Your task to perform on an android device: Do I have any events this weekend? Image 0: 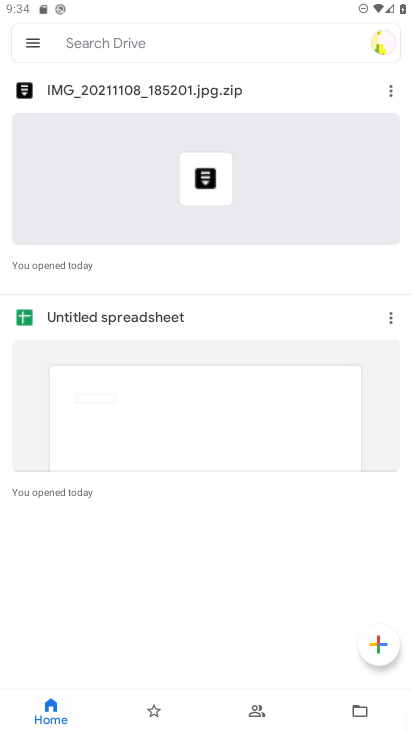
Step 0: press home button
Your task to perform on an android device: Do I have any events this weekend? Image 1: 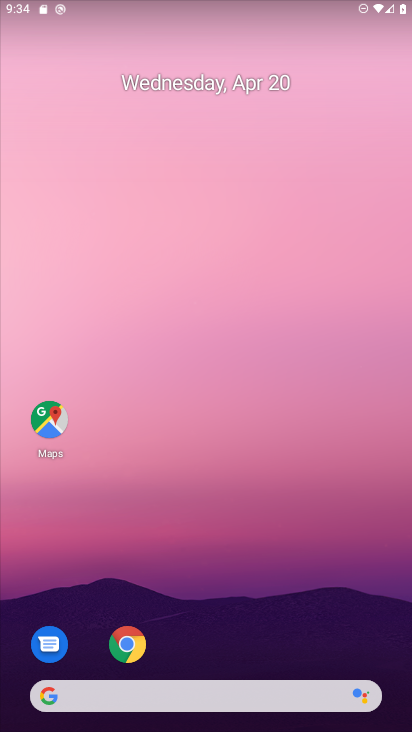
Step 1: drag from (304, 519) to (194, 17)
Your task to perform on an android device: Do I have any events this weekend? Image 2: 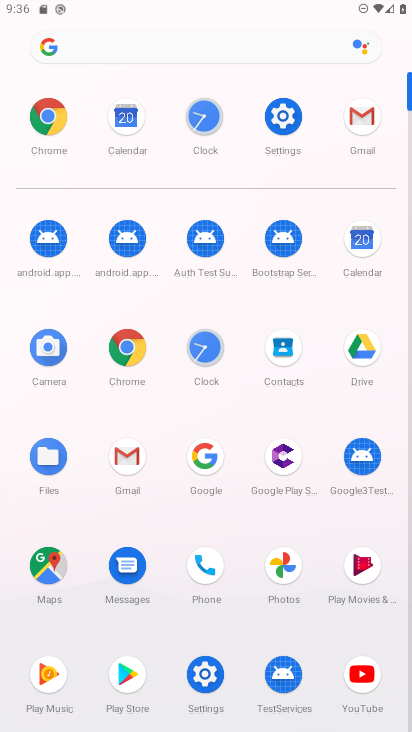
Step 2: click (373, 238)
Your task to perform on an android device: Do I have any events this weekend? Image 3: 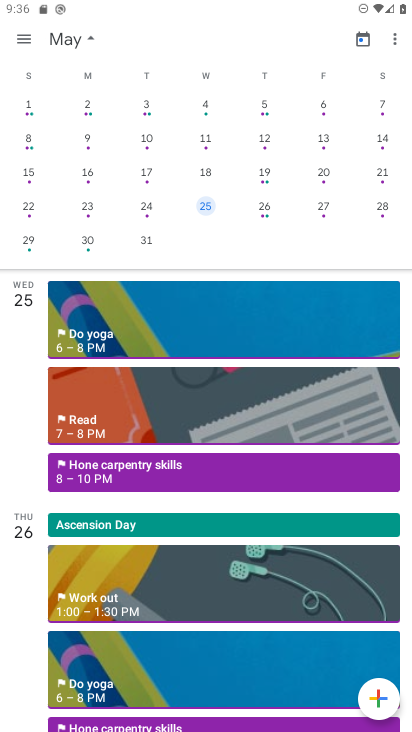
Step 3: task complete